Your task to perform on an android device: delete a single message in the gmail app Image 0: 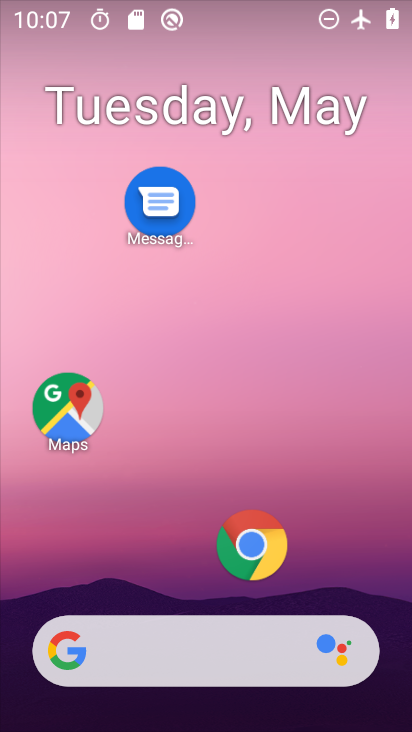
Step 0: drag from (175, 583) to (180, 146)
Your task to perform on an android device: delete a single message in the gmail app Image 1: 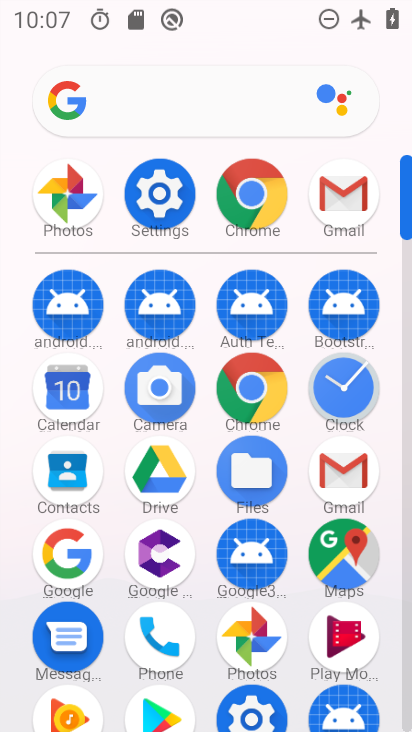
Step 1: click (311, 208)
Your task to perform on an android device: delete a single message in the gmail app Image 2: 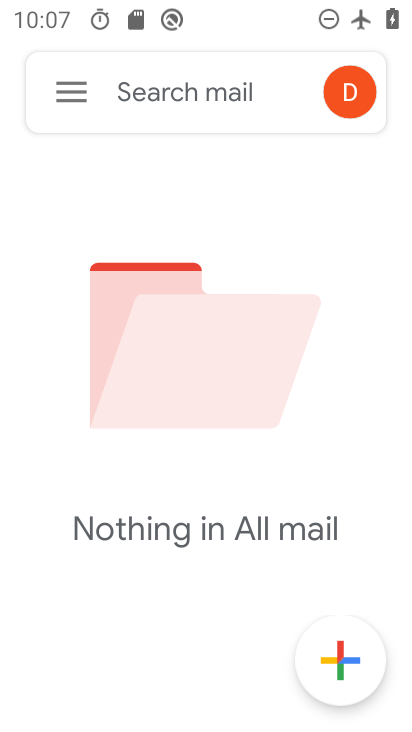
Step 2: click (54, 108)
Your task to perform on an android device: delete a single message in the gmail app Image 3: 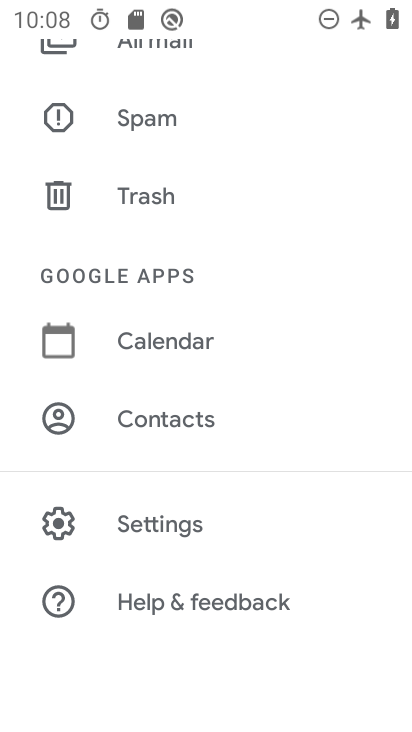
Step 3: drag from (180, 134) to (147, 505)
Your task to perform on an android device: delete a single message in the gmail app Image 4: 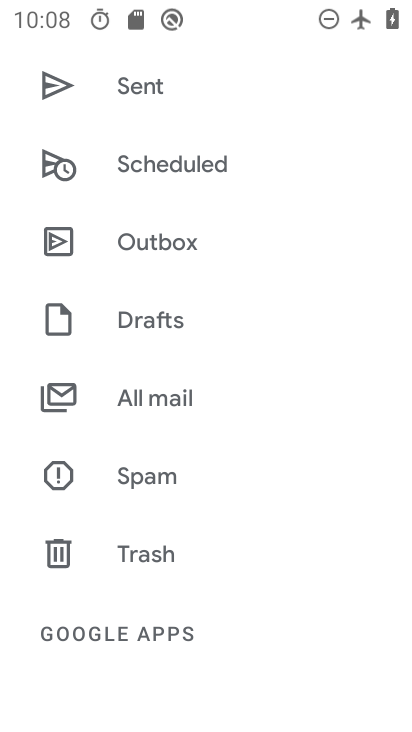
Step 4: drag from (152, 169) to (171, 348)
Your task to perform on an android device: delete a single message in the gmail app Image 5: 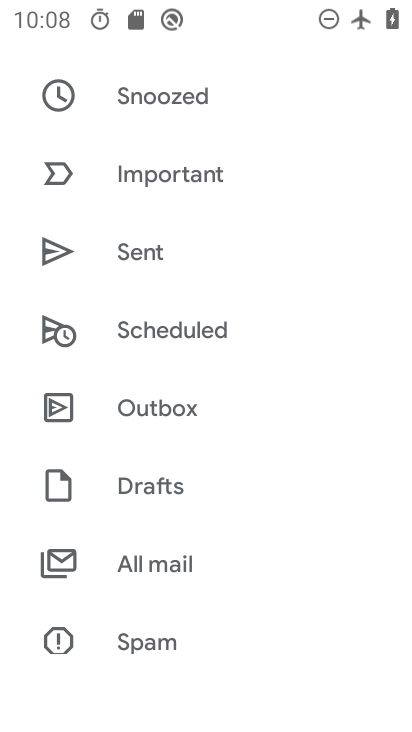
Step 5: click (166, 540)
Your task to perform on an android device: delete a single message in the gmail app Image 6: 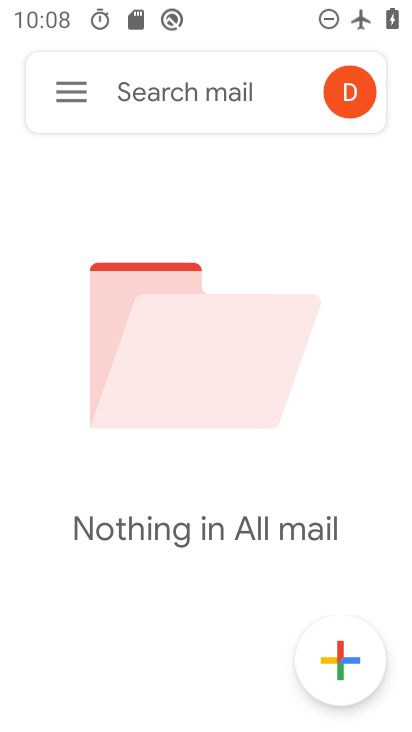
Step 6: task complete